Your task to perform on an android device: find snoozed emails in the gmail app Image 0: 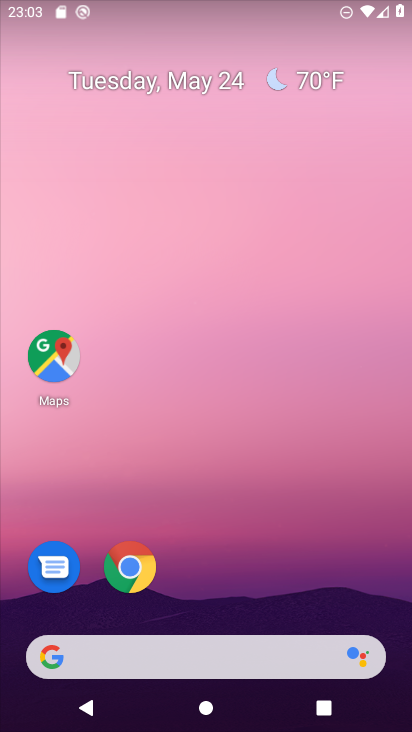
Step 0: drag from (292, 421) to (172, 22)
Your task to perform on an android device: find snoozed emails in the gmail app Image 1: 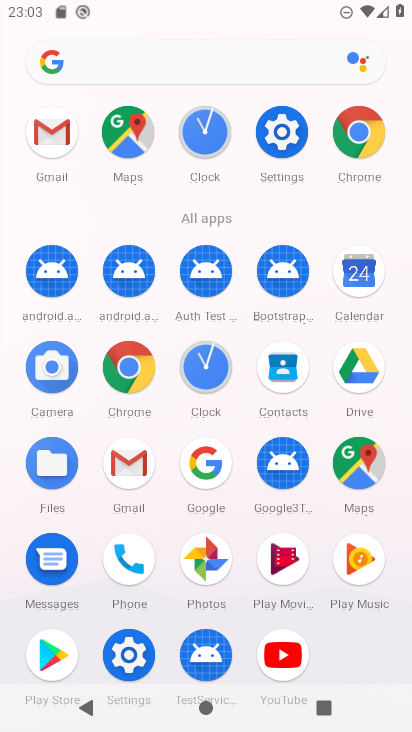
Step 1: click (54, 137)
Your task to perform on an android device: find snoozed emails in the gmail app Image 2: 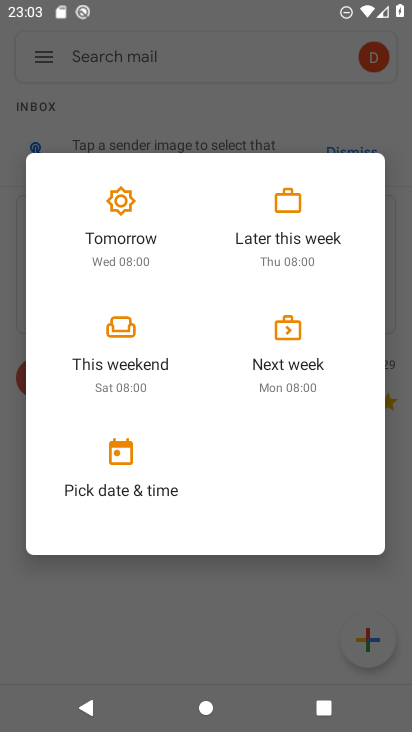
Step 2: press home button
Your task to perform on an android device: find snoozed emails in the gmail app Image 3: 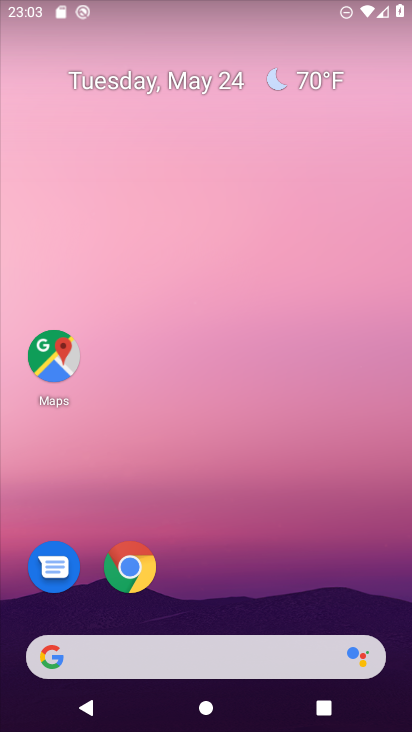
Step 3: drag from (230, 244) to (133, 2)
Your task to perform on an android device: find snoozed emails in the gmail app Image 4: 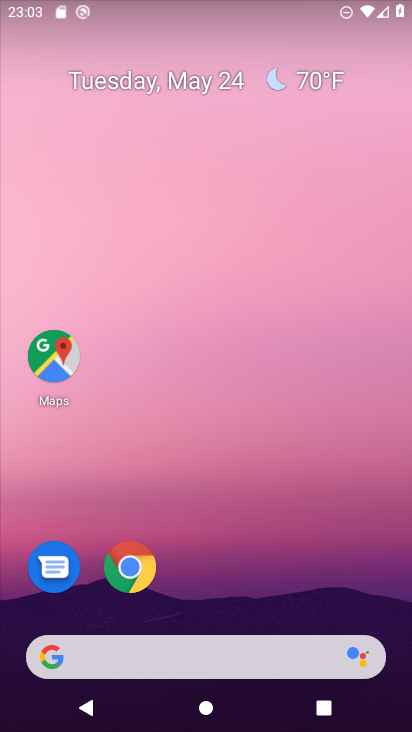
Step 4: drag from (317, 573) to (85, 21)
Your task to perform on an android device: find snoozed emails in the gmail app Image 5: 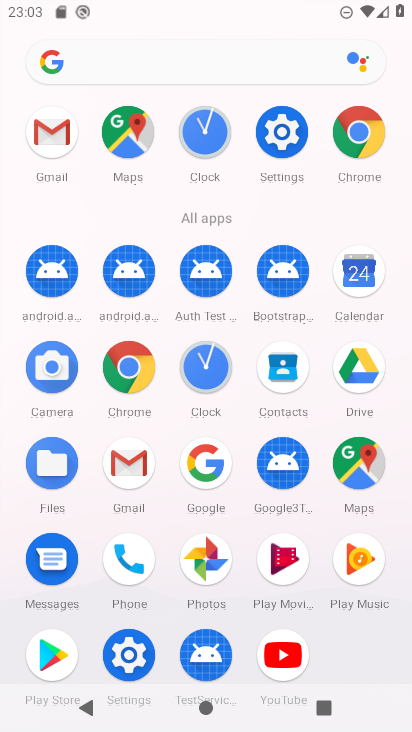
Step 5: click (60, 179)
Your task to perform on an android device: find snoozed emails in the gmail app Image 6: 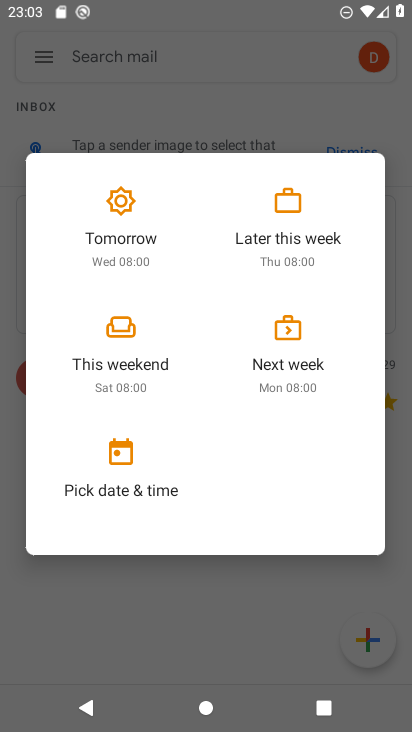
Step 6: click (107, 96)
Your task to perform on an android device: find snoozed emails in the gmail app Image 7: 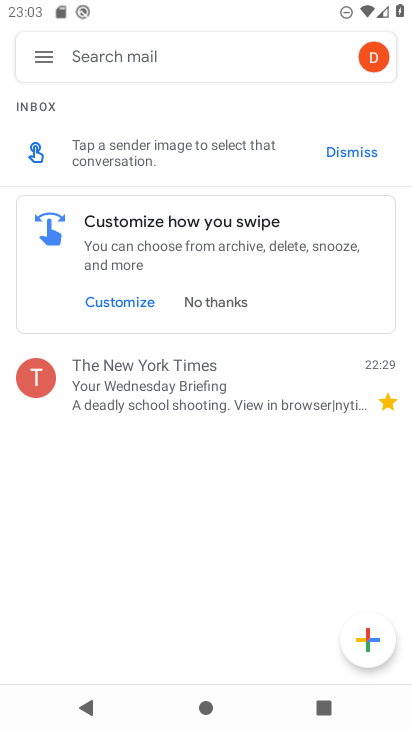
Step 7: click (43, 60)
Your task to perform on an android device: find snoozed emails in the gmail app Image 8: 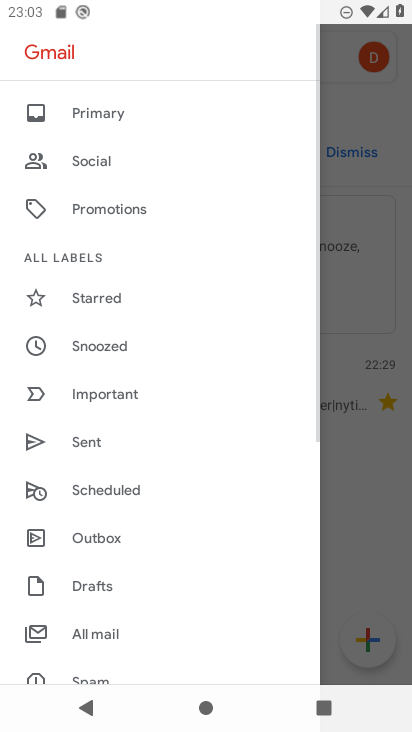
Step 8: click (126, 333)
Your task to perform on an android device: find snoozed emails in the gmail app Image 9: 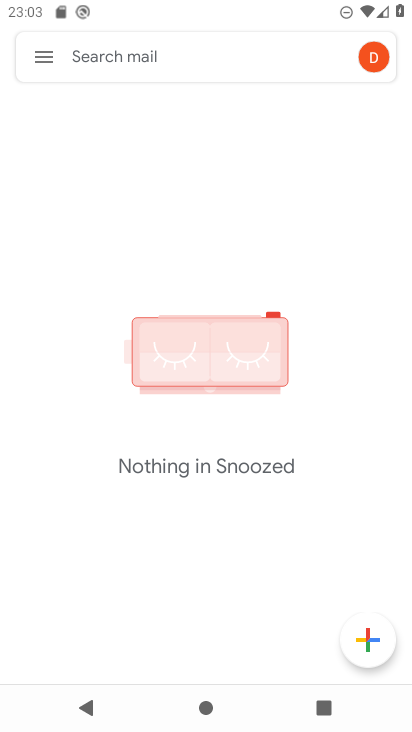
Step 9: task complete